Your task to perform on an android device: turn off translation in the chrome app Image 0: 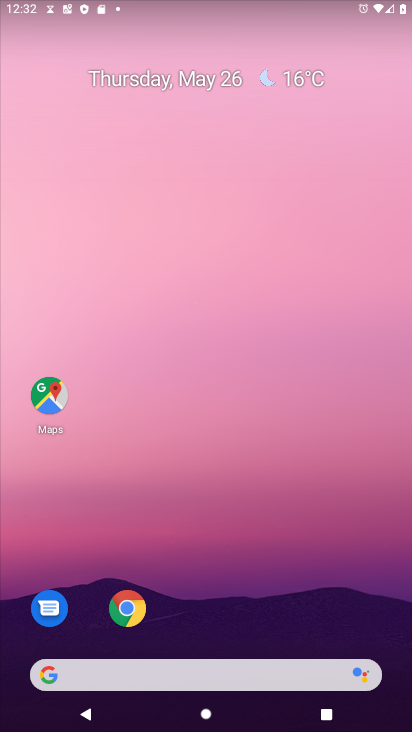
Step 0: click (128, 608)
Your task to perform on an android device: turn off translation in the chrome app Image 1: 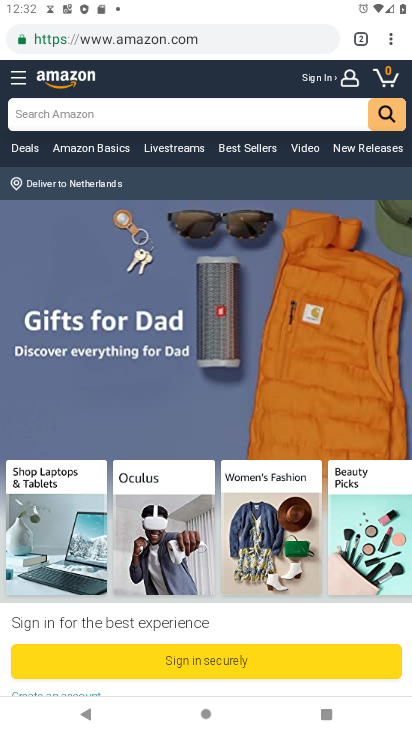
Step 1: click (393, 42)
Your task to perform on an android device: turn off translation in the chrome app Image 2: 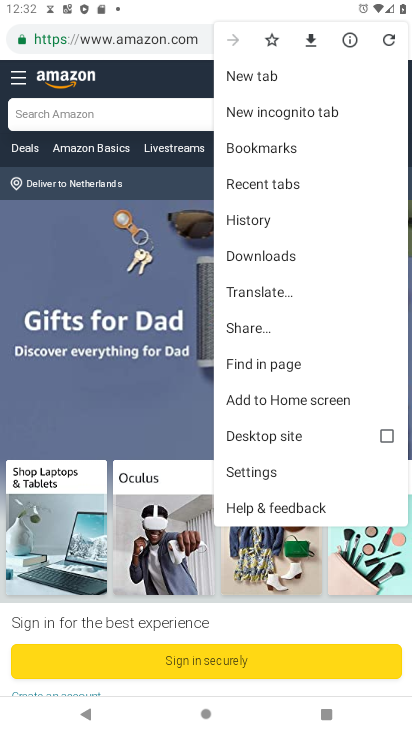
Step 2: click (255, 472)
Your task to perform on an android device: turn off translation in the chrome app Image 3: 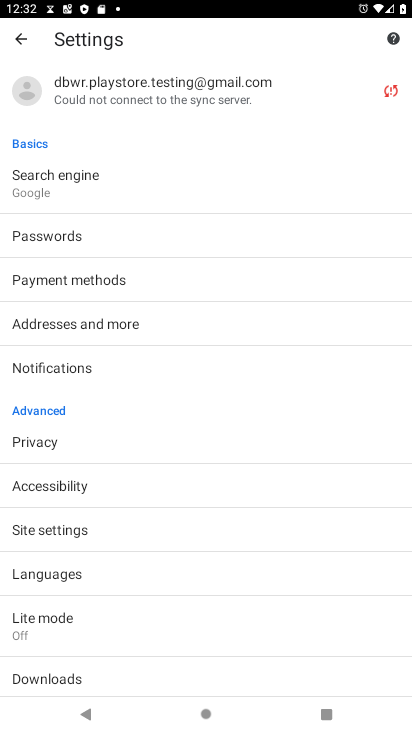
Step 3: click (71, 569)
Your task to perform on an android device: turn off translation in the chrome app Image 4: 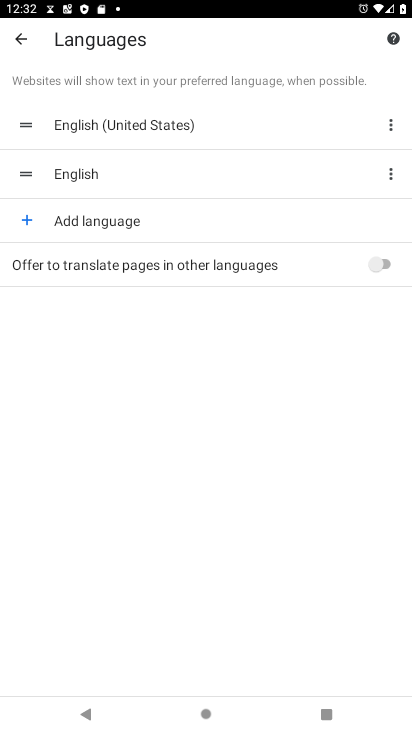
Step 4: task complete